Your task to perform on an android device: turn off airplane mode Image 0: 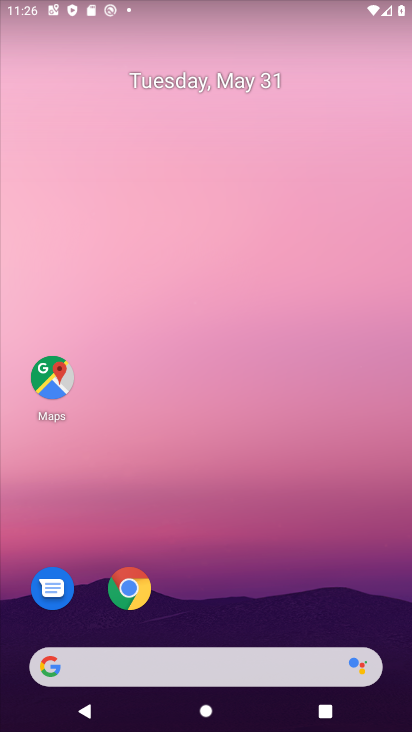
Step 0: drag from (223, 635) to (326, 239)
Your task to perform on an android device: turn off airplane mode Image 1: 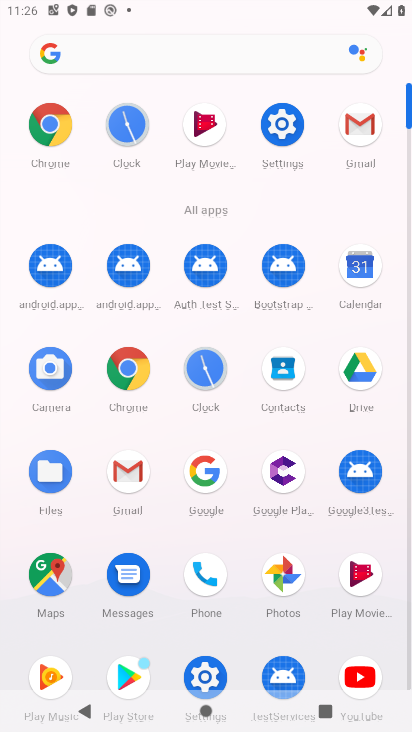
Step 1: click (278, 135)
Your task to perform on an android device: turn off airplane mode Image 2: 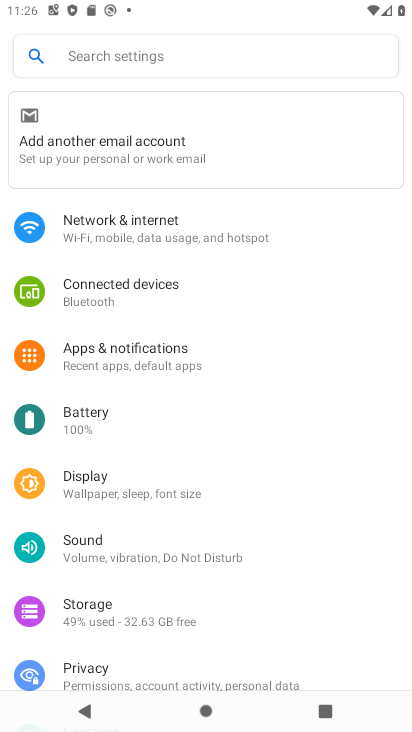
Step 2: click (140, 227)
Your task to perform on an android device: turn off airplane mode Image 3: 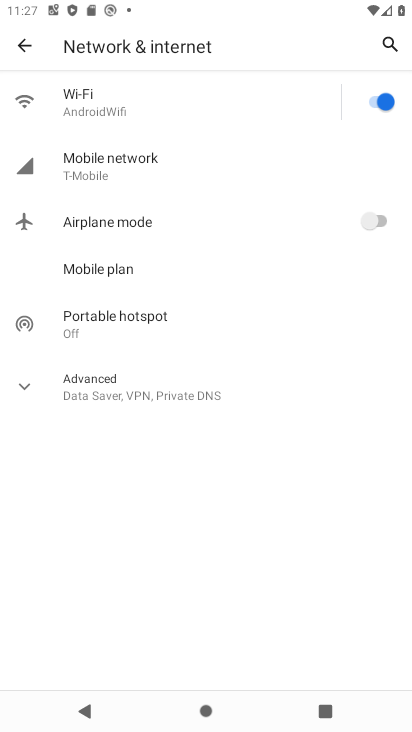
Step 3: click (144, 119)
Your task to perform on an android device: turn off airplane mode Image 4: 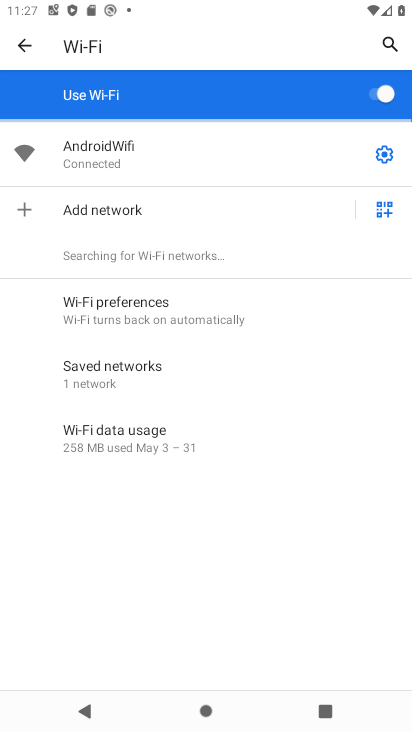
Step 4: click (21, 53)
Your task to perform on an android device: turn off airplane mode Image 5: 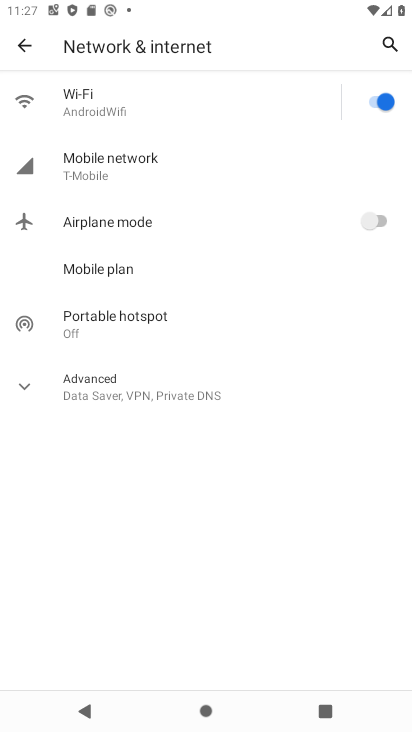
Step 5: task complete